Your task to perform on an android device: Clear all items from cart on target.com. Search for "beats solo 3" on target.com, select the first entry, and add it to the cart. Image 0: 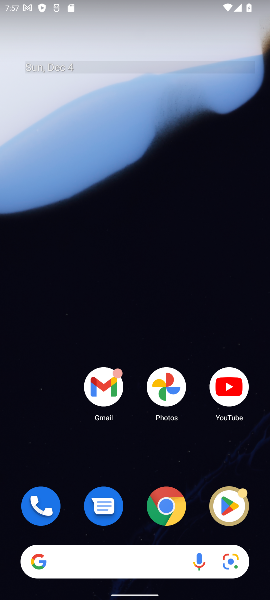
Step 0: click (156, 512)
Your task to perform on an android device: Clear all items from cart on target.com. Search for "beats solo 3" on target.com, select the first entry, and add it to the cart. Image 1: 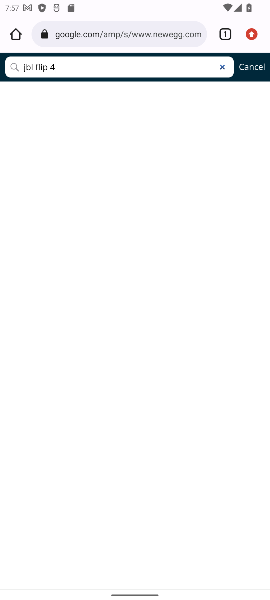
Step 1: click (129, 28)
Your task to perform on an android device: Clear all items from cart on target.com. Search for "beats solo 3" on target.com, select the first entry, and add it to the cart. Image 2: 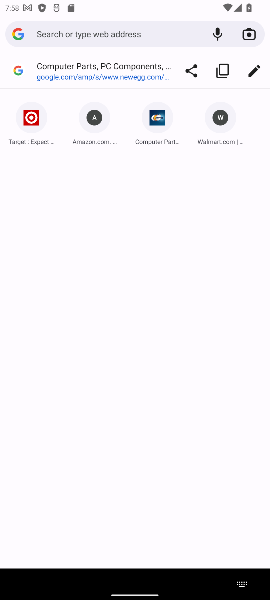
Step 2: click (38, 115)
Your task to perform on an android device: Clear all items from cart on target.com. Search for "beats solo 3" on target.com, select the first entry, and add it to the cart. Image 3: 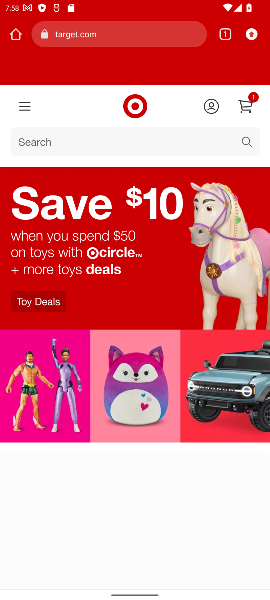
Step 3: click (255, 115)
Your task to perform on an android device: Clear all items from cart on target.com. Search for "beats solo 3" on target.com, select the first entry, and add it to the cart. Image 4: 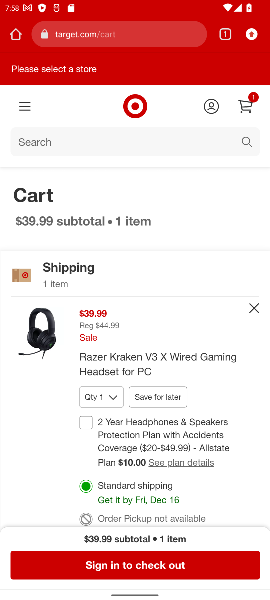
Step 4: click (249, 311)
Your task to perform on an android device: Clear all items from cart on target.com. Search for "beats solo 3" on target.com, select the first entry, and add it to the cart. Image 5: 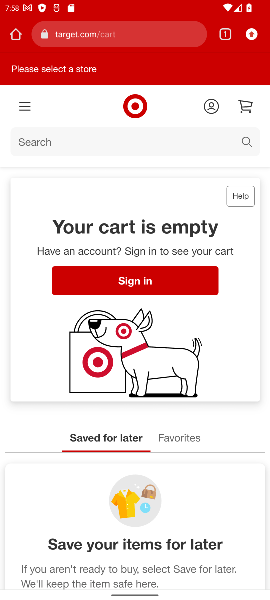
Step 5: click (92, 142)
Your task to perform on an android device: Clear all items from cart on target.com. Search for "beats solo 3" on target.com, select the first entry, and add it to the cart. Image 6: 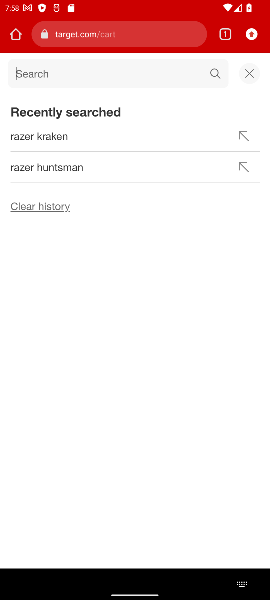
Step 6: type "beats solo 3"
Your task to perform on an android device: Clear all items from cart on target.com. Search for "beats solo 3" on target.com, select the first entry, and add it to the cart. Image 7: 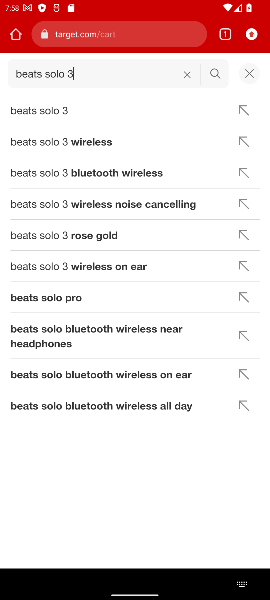
Step 7: click (217, 75)
Your task to perform on an android device: Clear all items from cart on target.com. Search for "beats solo 3" on target.com, select the first entry, and add it to the cart. Image 8: 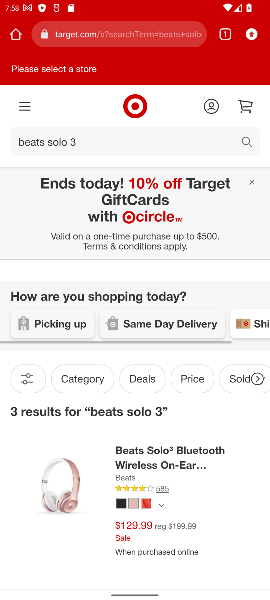
Step 8: drag from (163, 483) to (223, 276)
Your task to perform on an android device: Clear all items from cart on target.com. Search for "beats solo 3" on target.com, select the first entry, and add it to the cart. Image 9: 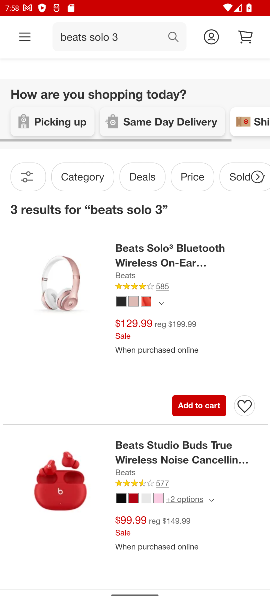
Step 9: click (201, 407)
Your task to perform on an android device: Clear all items from cart on target.com. Search for "beats solo 3" on target.com, select the first entry, and add it to the cart. Image 10: 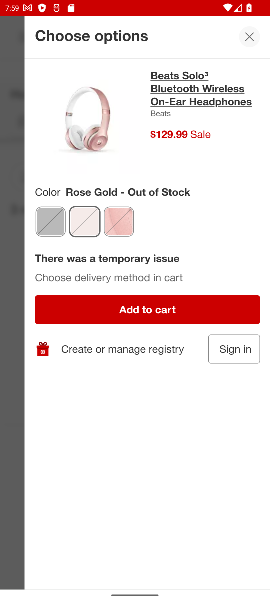
Step 10: click (83, 225)
Your task to perform on an android device: Clear all items from cart on target.com. Search for "beats solo 3" on target.com, select the first entry, and add it to the cart. Image 11: 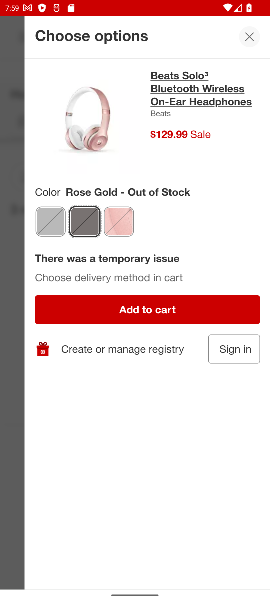
Step 11: click (48, 229)
Your task to perform on an android device: Clear all items from cart on target.com. Search for "beats solo 3" on target.com, select the first entry, and add it to the cart. Image 12: 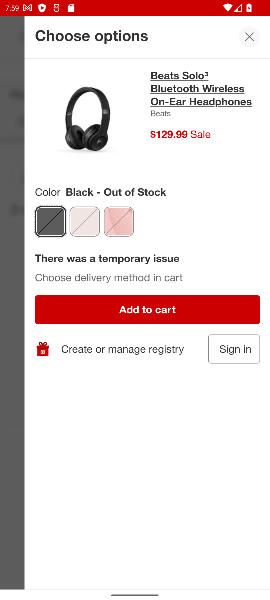
Step 12: click (120, 325)
Your task to perform on an android device: Clear all items from cart on target.com. Search for "beats solo 3" on target.com, select the first entry, and add it to the cart. Image 13: 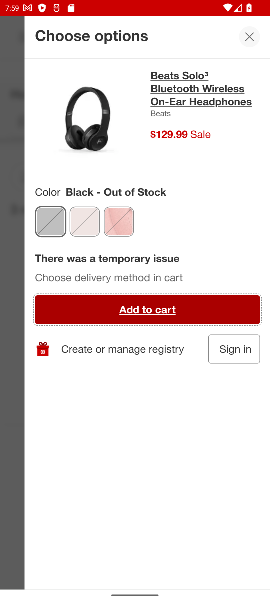
Step 13: click (108, 318)
Your task to perform on an android device: Clear all items from cart on target.com. Search for "beats solo 3" on target.com, select the first entry, and add it to the cart. Image 14: 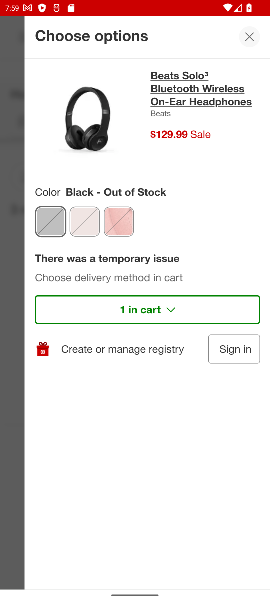
Step 14: click (108, 318)
Your task to perform on an android device: Clear all items from cart on target.com. Search for "beats solo 3" on target.com, select the first entry, and add it to the cart. Image 15: 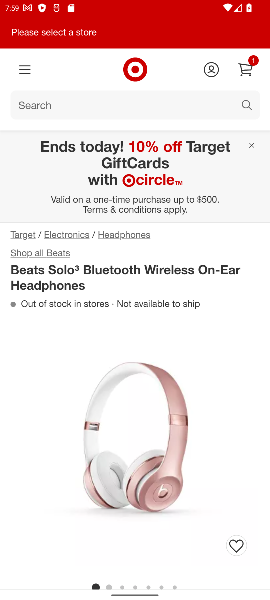
Step 15: task complete